Your task to perform on an android device: Go to location settings Image 0: 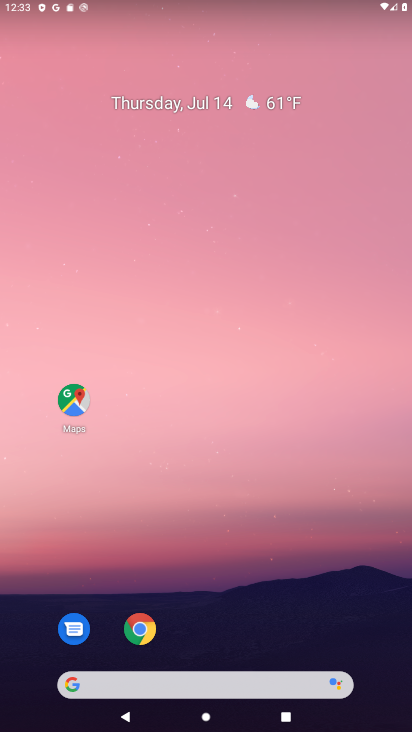
Step 0: drag from (217, 639) to (200, 341)
Your task to perform on an android device: Go to location settings Image 1: 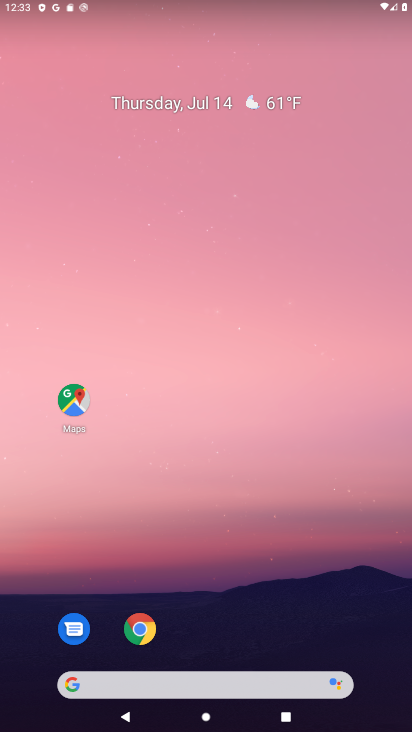
Step 1: drag from (201, 604) to (385, 337)
Your task to perform on an android device: Go to location settings Image 2: 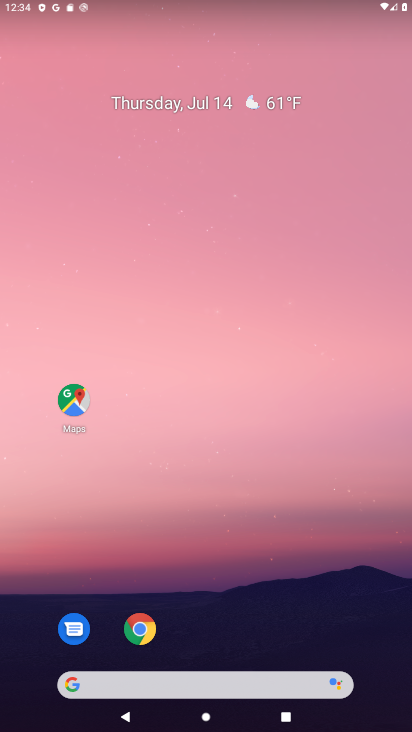
Step 2: drag from (186, 642) to (206, 339)
Your task to perform on an android device: Go to location settings Image 3: 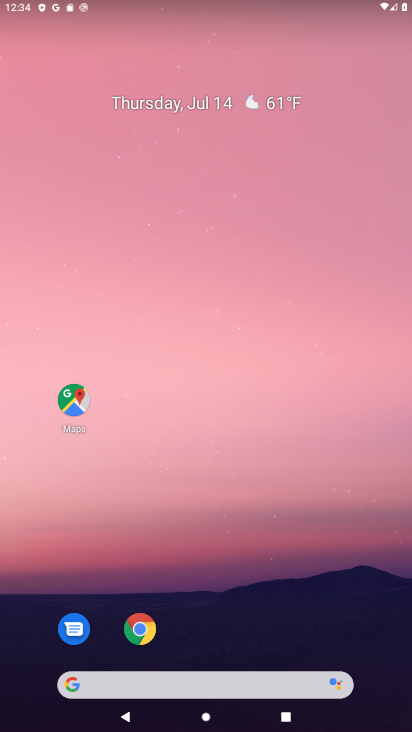
Step 3: drag from (227, 651) to (276, 127)
Your task to perform on an android device: Go to location settings Image 4: 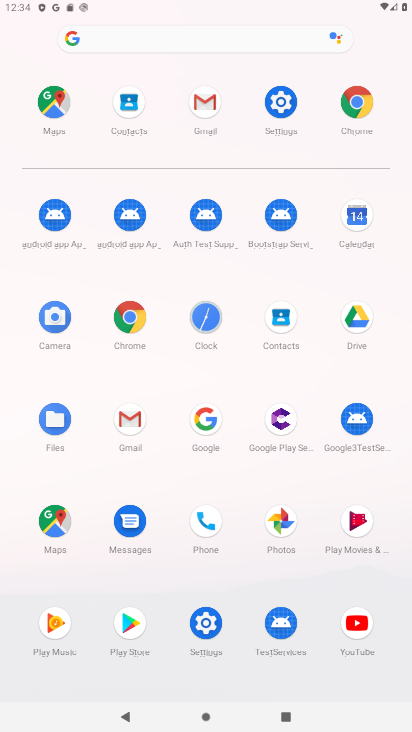
Step 4: click (293, 102)
Your task to perform on an android device: Go to location settings Image 5: 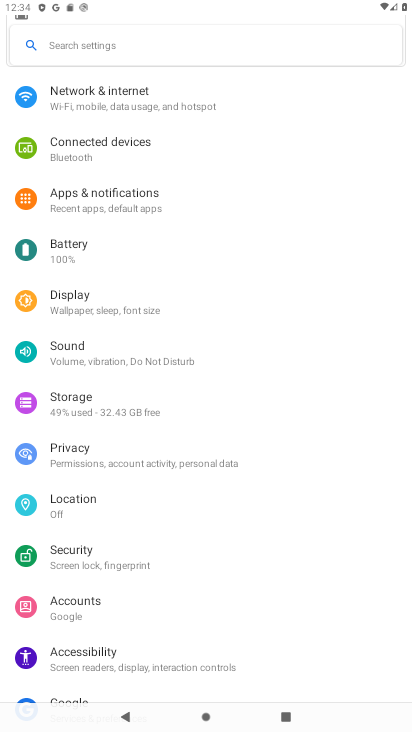
Step 5: click (127, 504)
Your task to perform on an android device: Go to location settings Image 6: 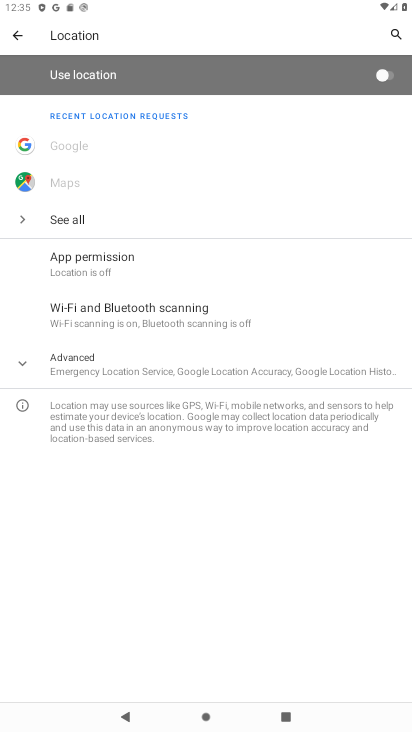
Step 6: task complete